Your task to perform on an android device: toggle data saver in the chrome app Image 0: 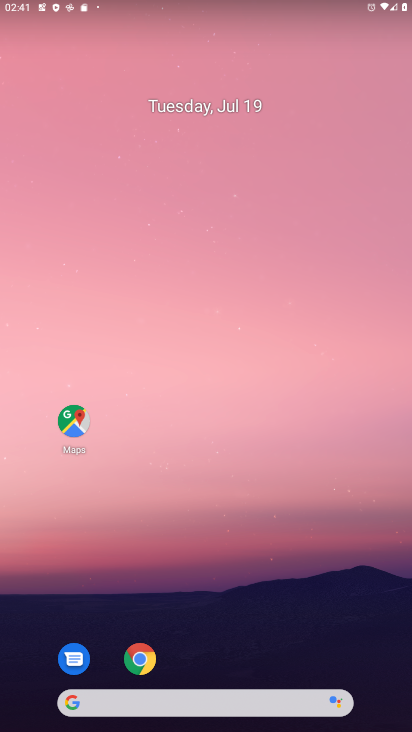
Step 0: press home button
Your task to perform on an android device: toggle data saver in the chrome app Image 1: 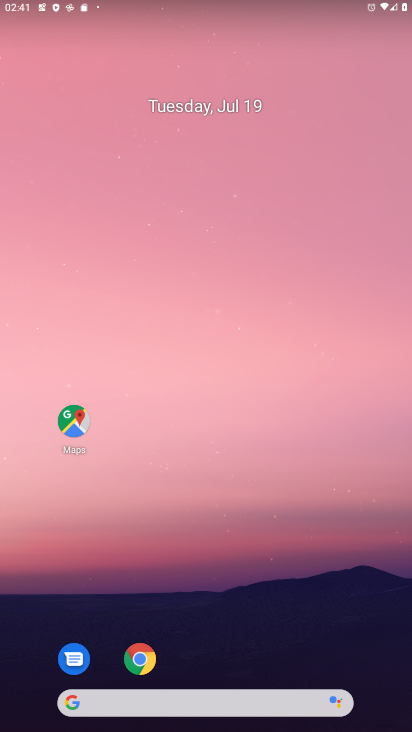
Step 1: click (120, 663)
Your task to perform on an android device: toggle data saver in the chrome app Image 2: 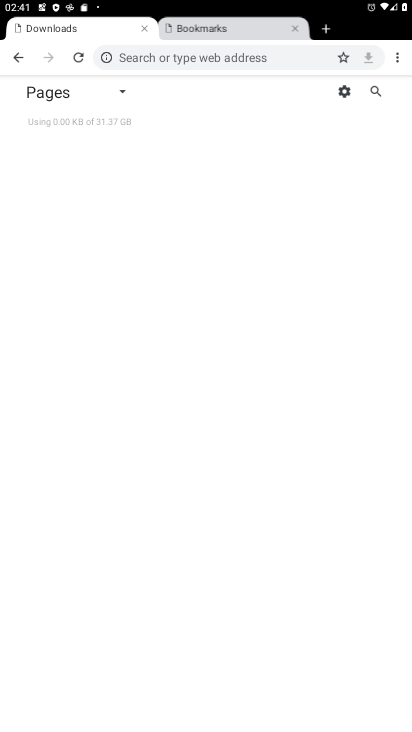
Step 2: drag from (394, 50) to (271, 289)
Your task to perform on an android device: toggle data saver in the chrome app Image 3: 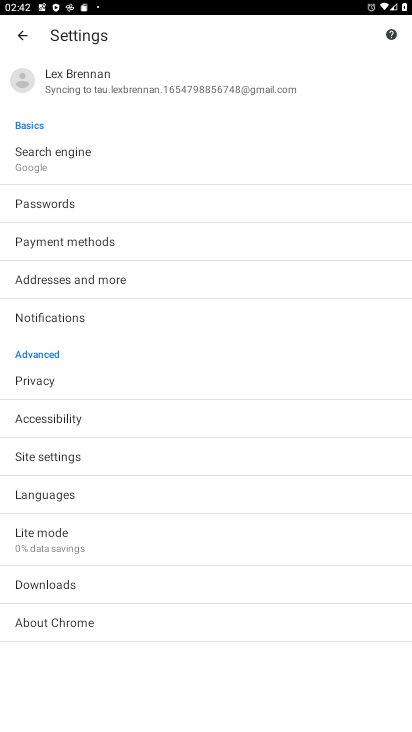
Step 3: click (41, 550)
Your task to perform on an android device: toggle data saver in the chrome app Image 4: 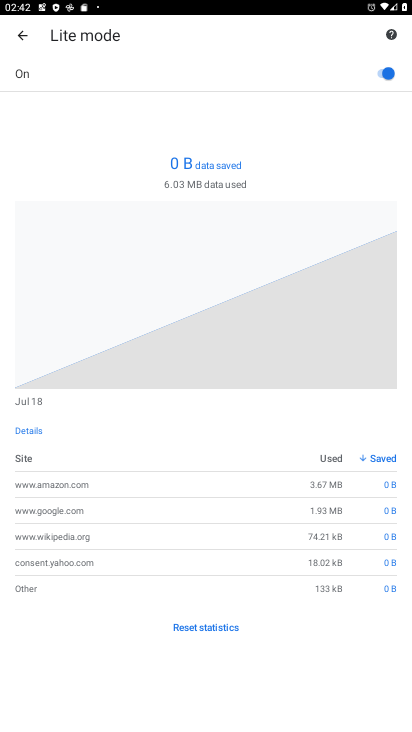
Step 4: click (297, 82)
Your task to perform on an android device: toggle data saver in the chrome app Image 5: 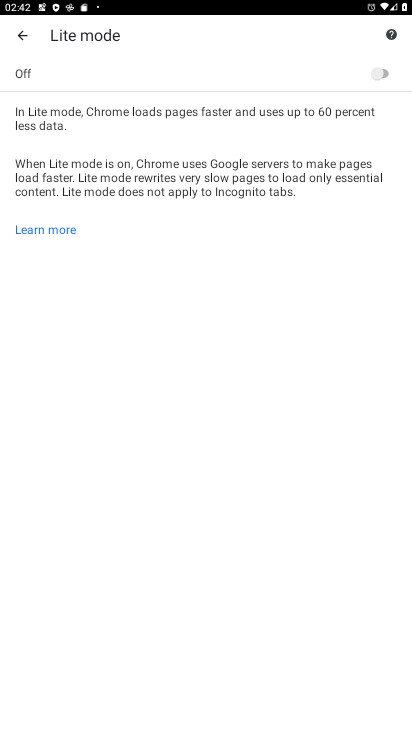
Step 5: task complete